Your task to perform on an android device: Open the map Image 0: 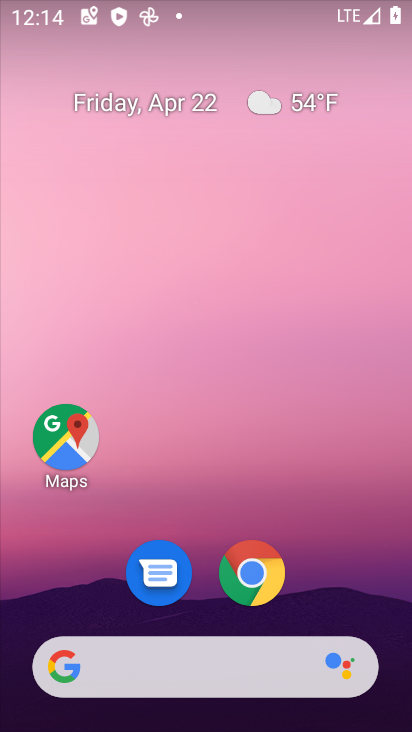
Step 0: drag from (354, 512) to (341, 162)
Your task to perform on an android device: Open the map Image 1: 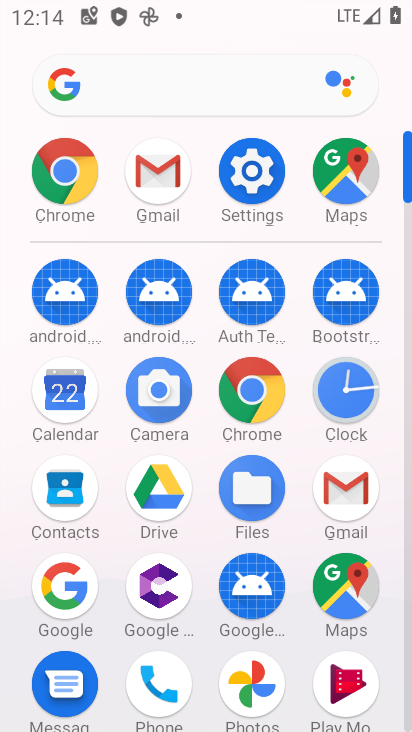
Step 1: click (340, 594)
Your task to perform on an android device: Open the map Image 2: 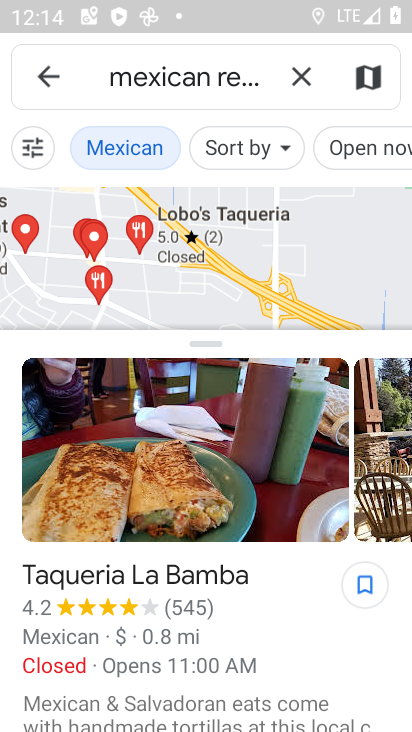
Step 2: task complete